Your task to perform on an android device: Go to Google Image 0: 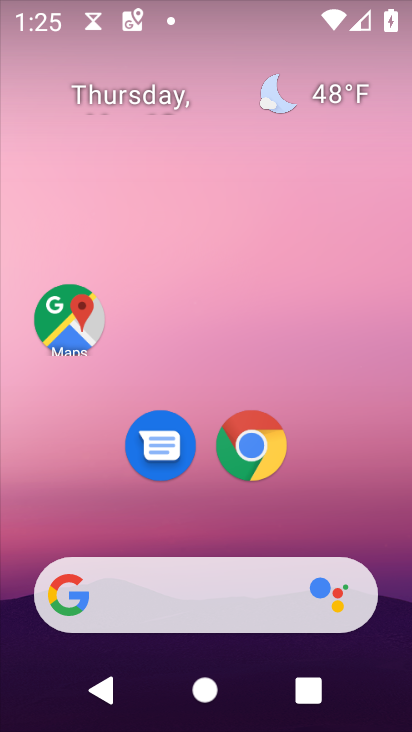
Step 0: drag from (270, 489) to (262, 128)
Your task to perform on an android device: Go to Google Image 1: 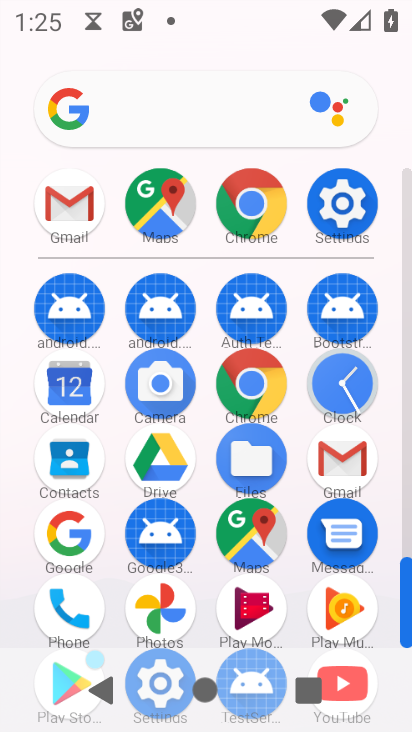
Step 1: click (62, 532)
Your task to perform on an android device: Go to Google Image 2: 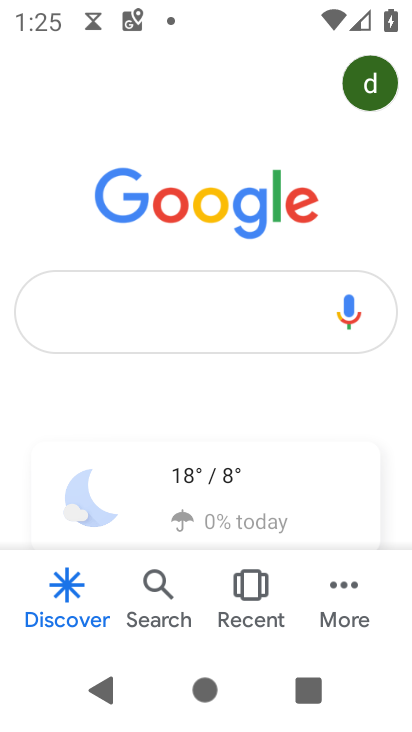
Step 2: task complete